Your task to perform on an android device: Add logitech g pro to the cart on ebay Image 0: 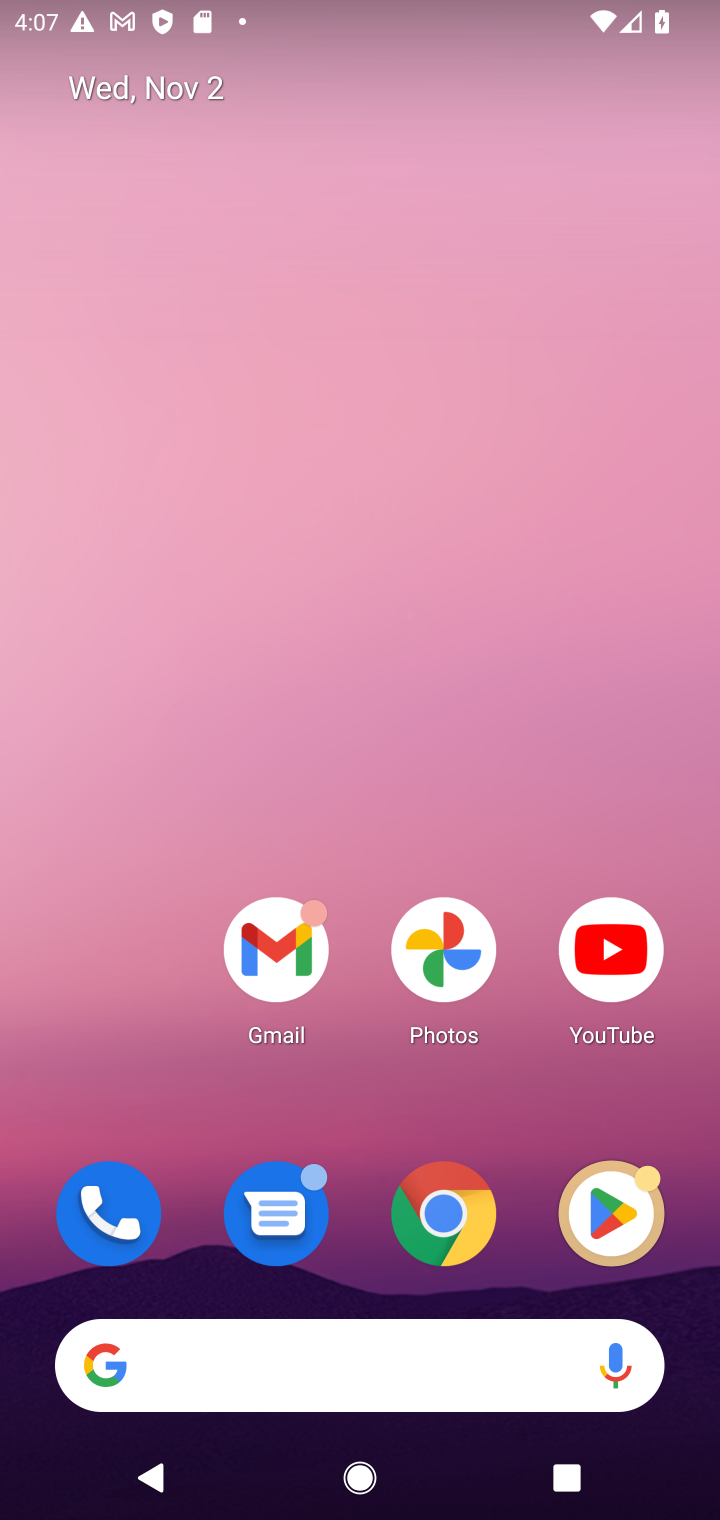
Step 0: drag from (356, 1251) to (428, 0)
Your task to perform on an android device: Add logitech g pro to the cart on ebay Image 1: 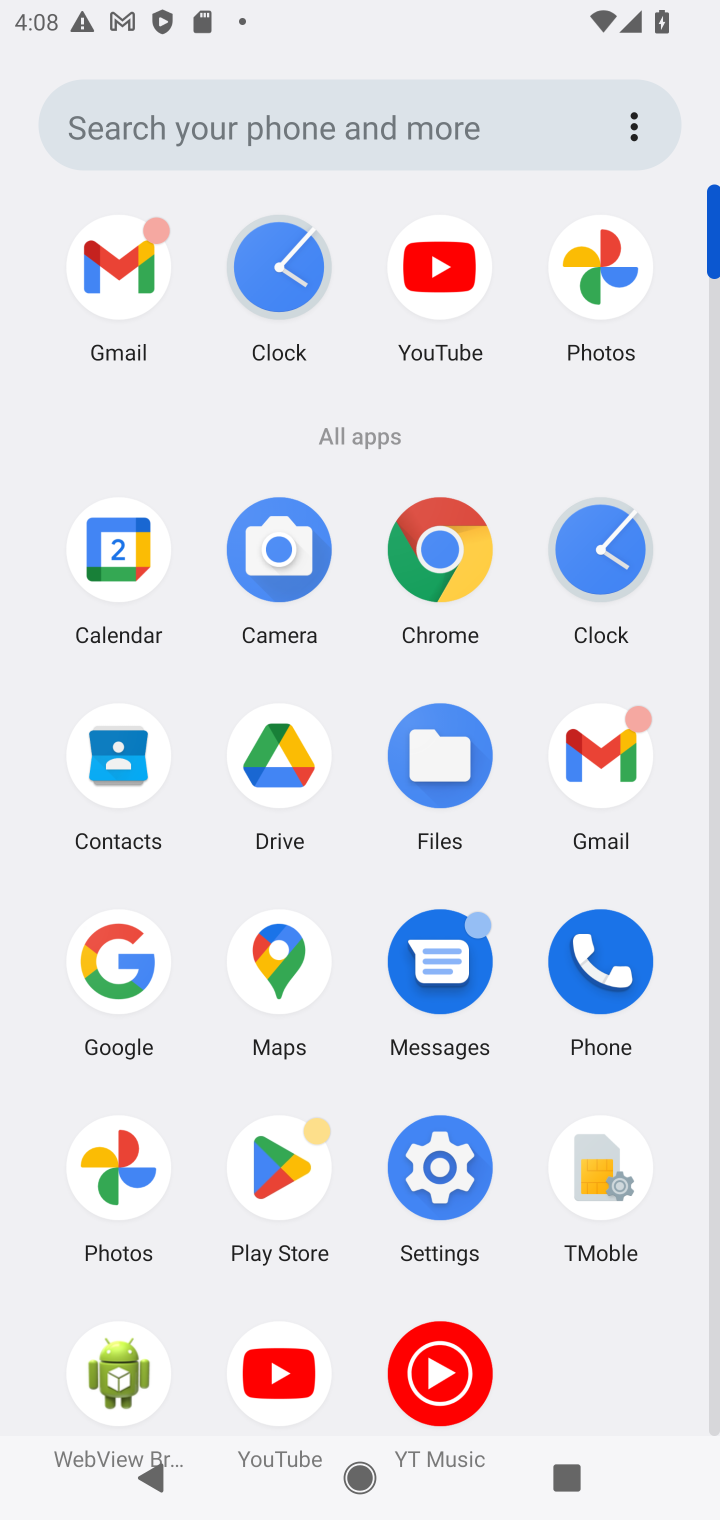
Step 1: click (76, 995)
Your task to perform on an android device: Add logitech g pro to the cart on ebay Image 2: 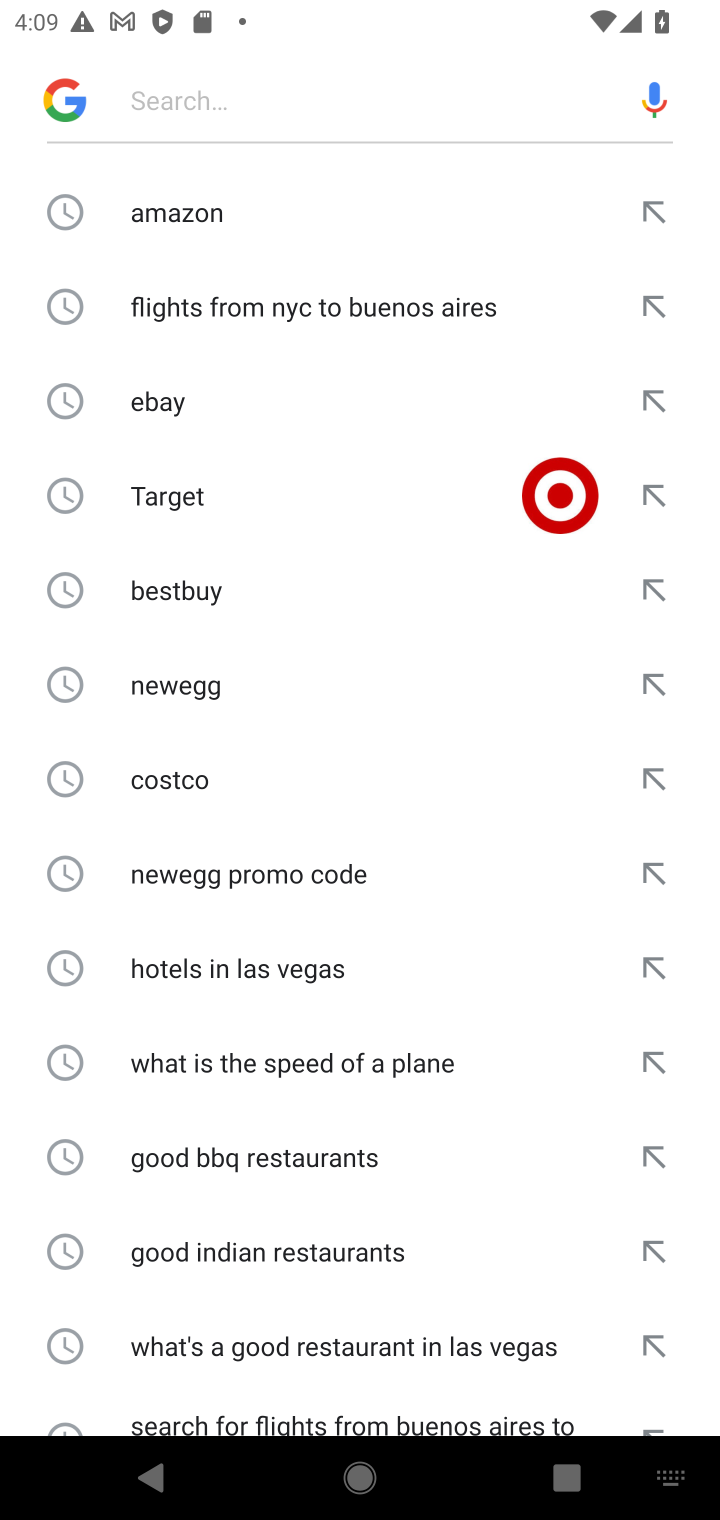
Step 2: type "ebay"
Your task to perform on an android device: Add logitech g pro to the cart on ebay Image 3: 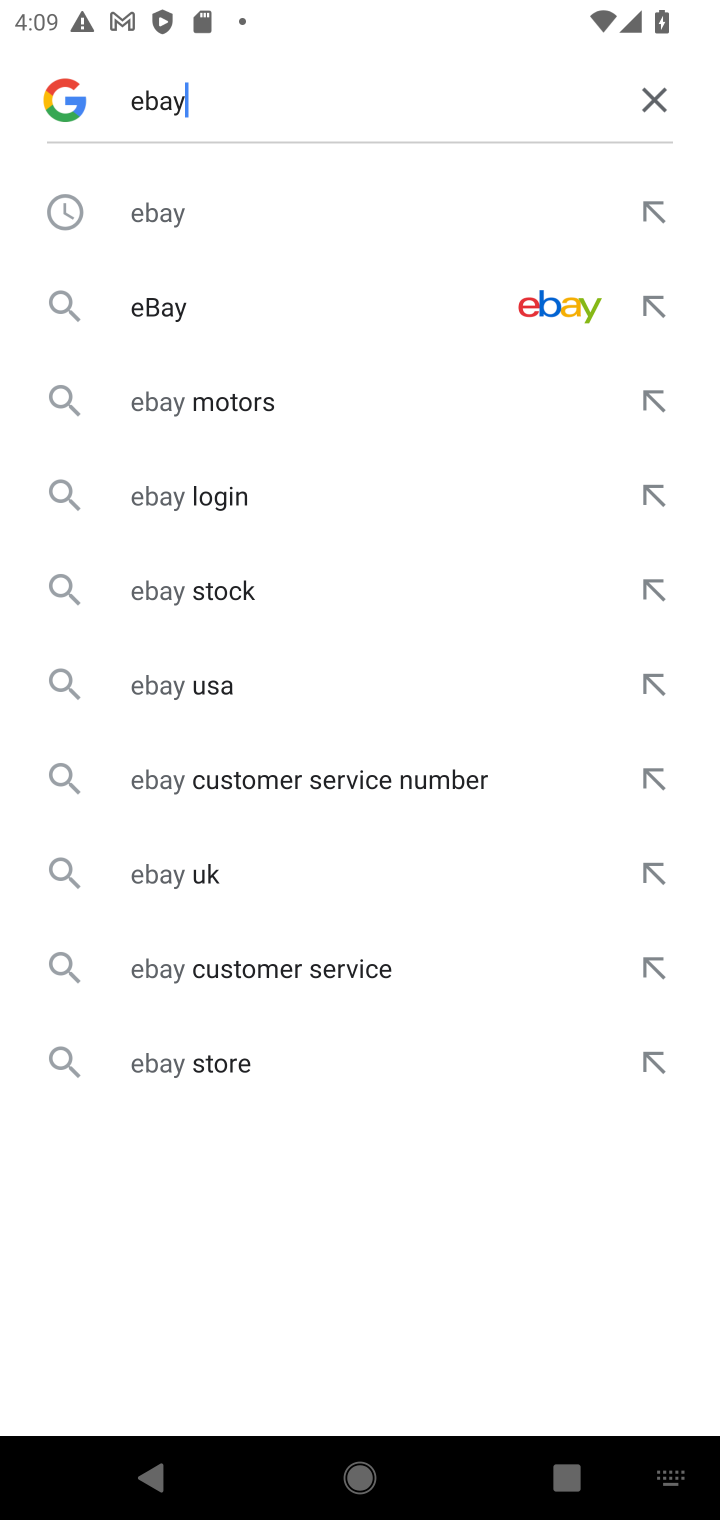
Step 3: click (176, 212)
Your task to perform on an android device: Add logitech g pro to the cart on ebay Image 4: 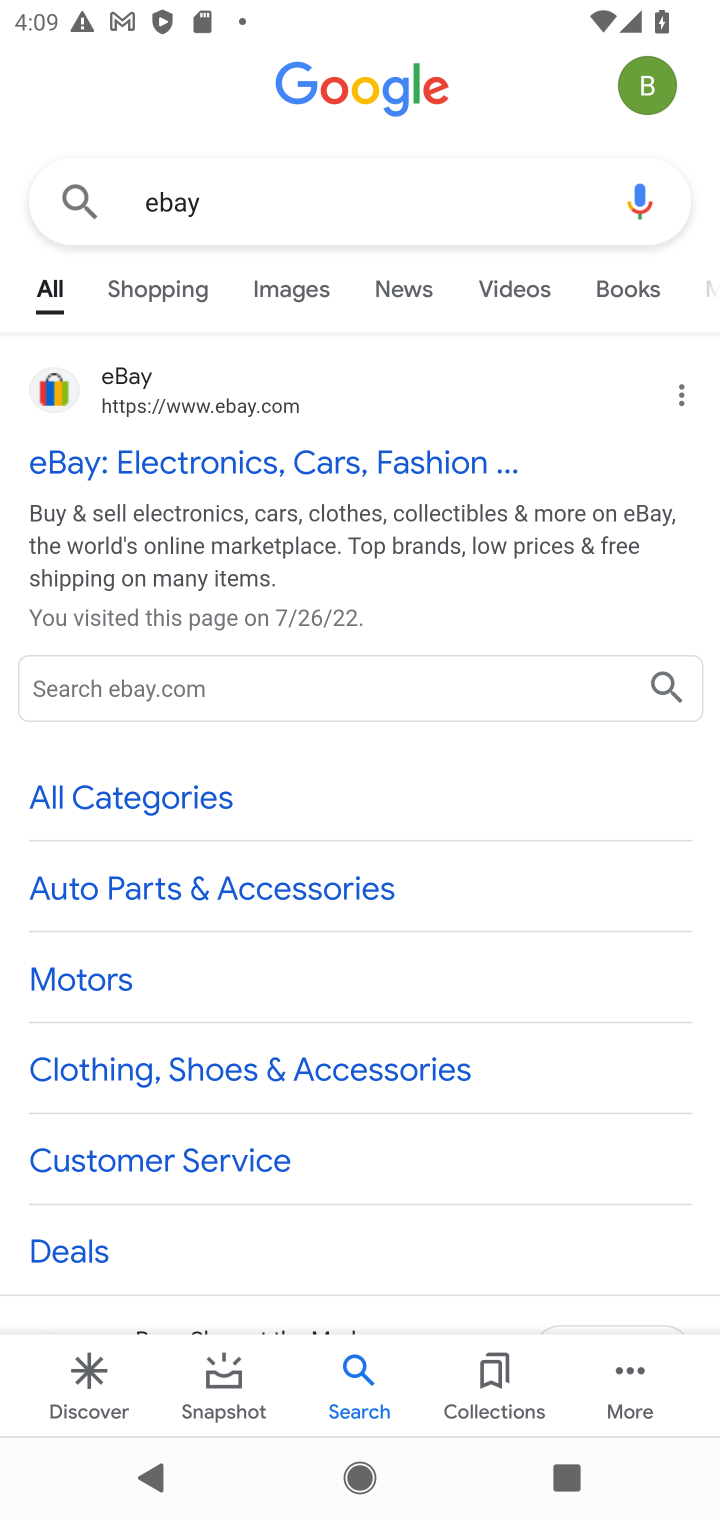
Step 4: click (297, 462)
Your task to perform on an android device: Add logitech g pro to the cart on ebay Image 5: 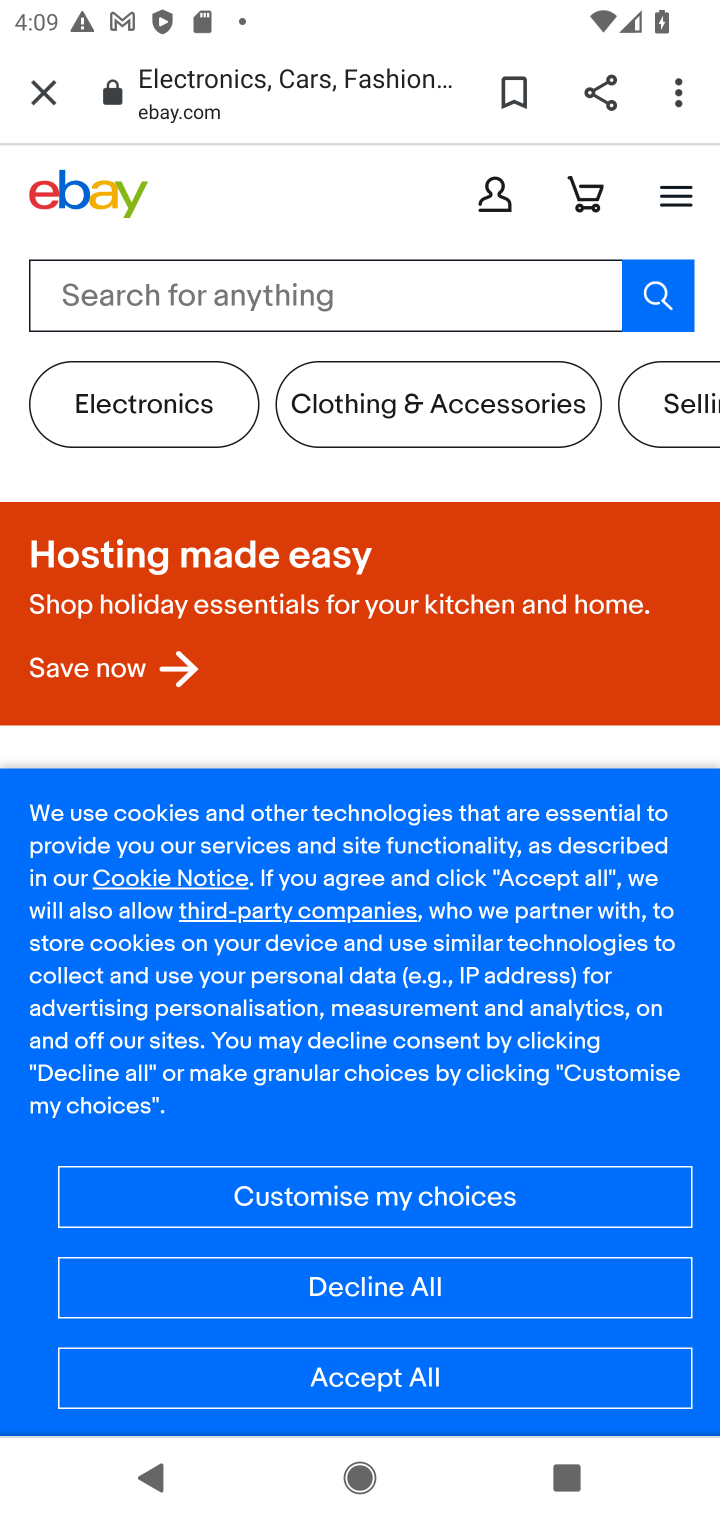
Step 5: click (416, 275)
Your task to perform on an android device: Add logitech g pro to the cart on ebay Image 6: 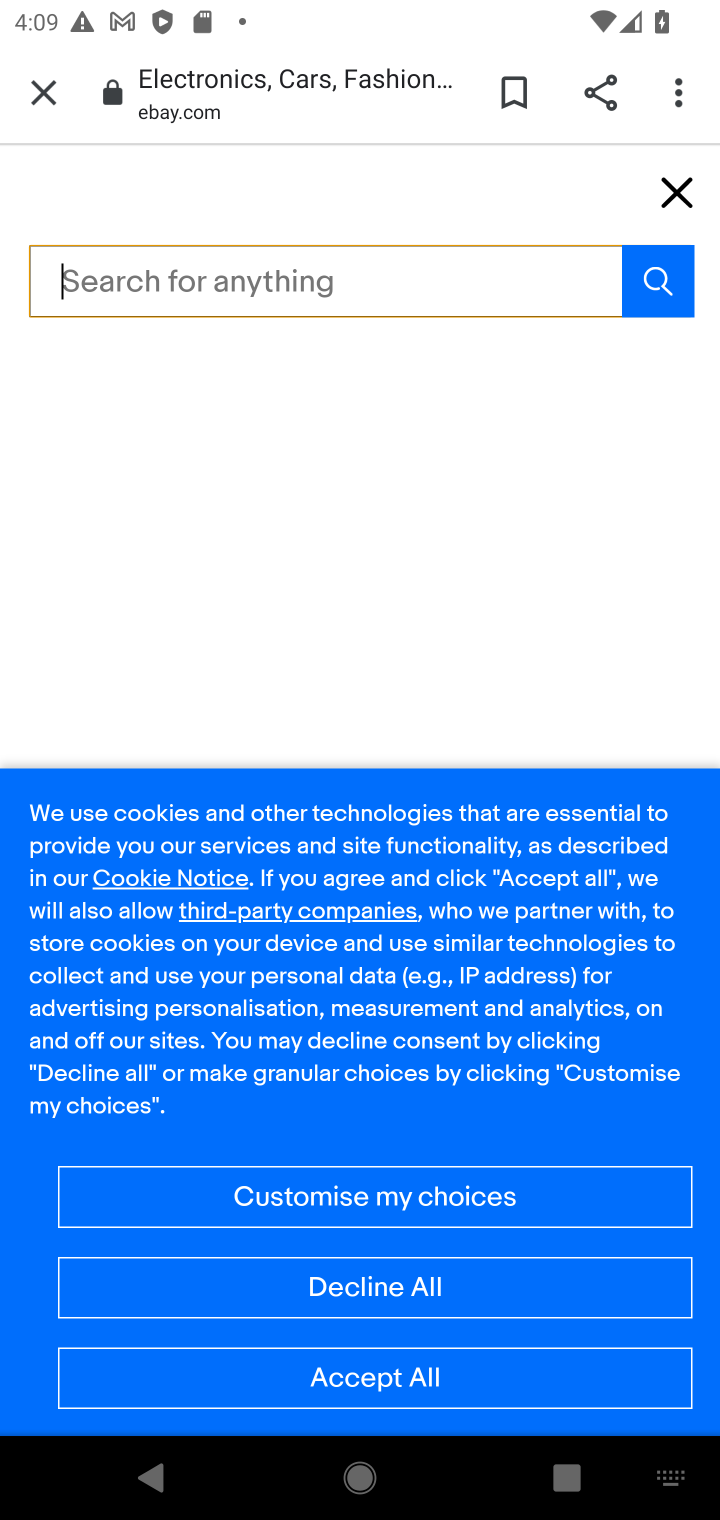
Step 6: type "logitech g pro"
Your task to perform on an android device: Add logitech g pro to the cart on ebay Image 7: 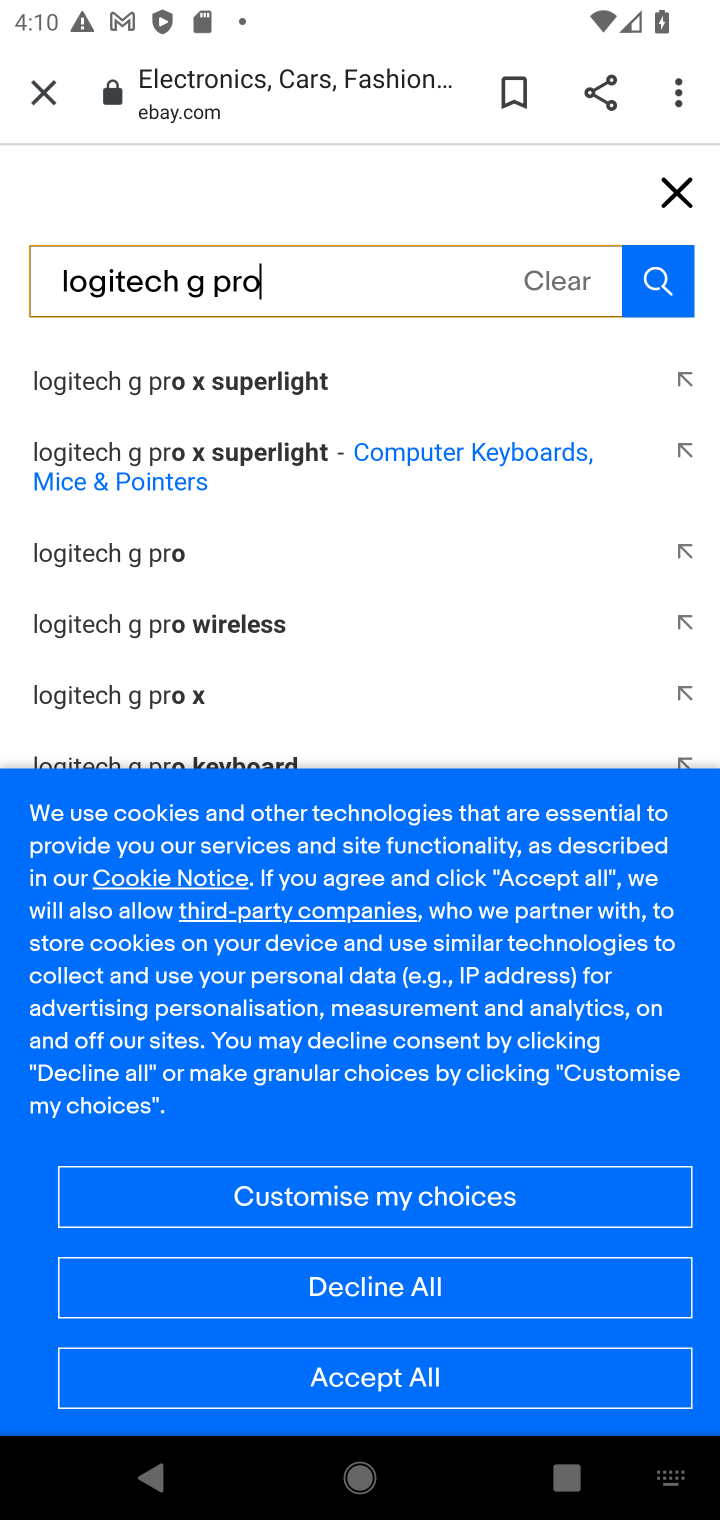
Step 7: click (267, 540)
Your task to perform on an android device: Add logitech g pro to the cart on ebay Image 8: 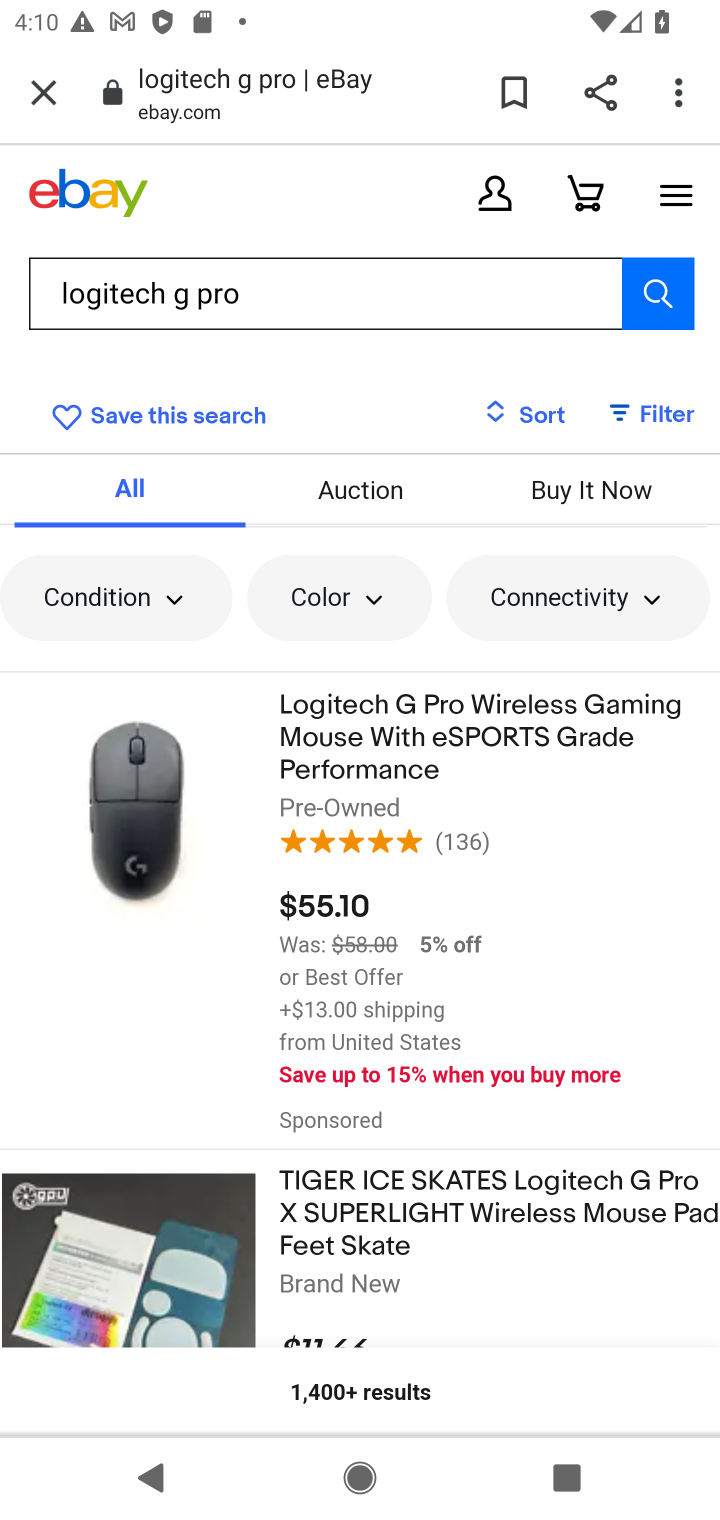
Step 8: click (423, 786)
Your task to perform on an android device: Add logitech g pro to the cart on ebay Image 9: 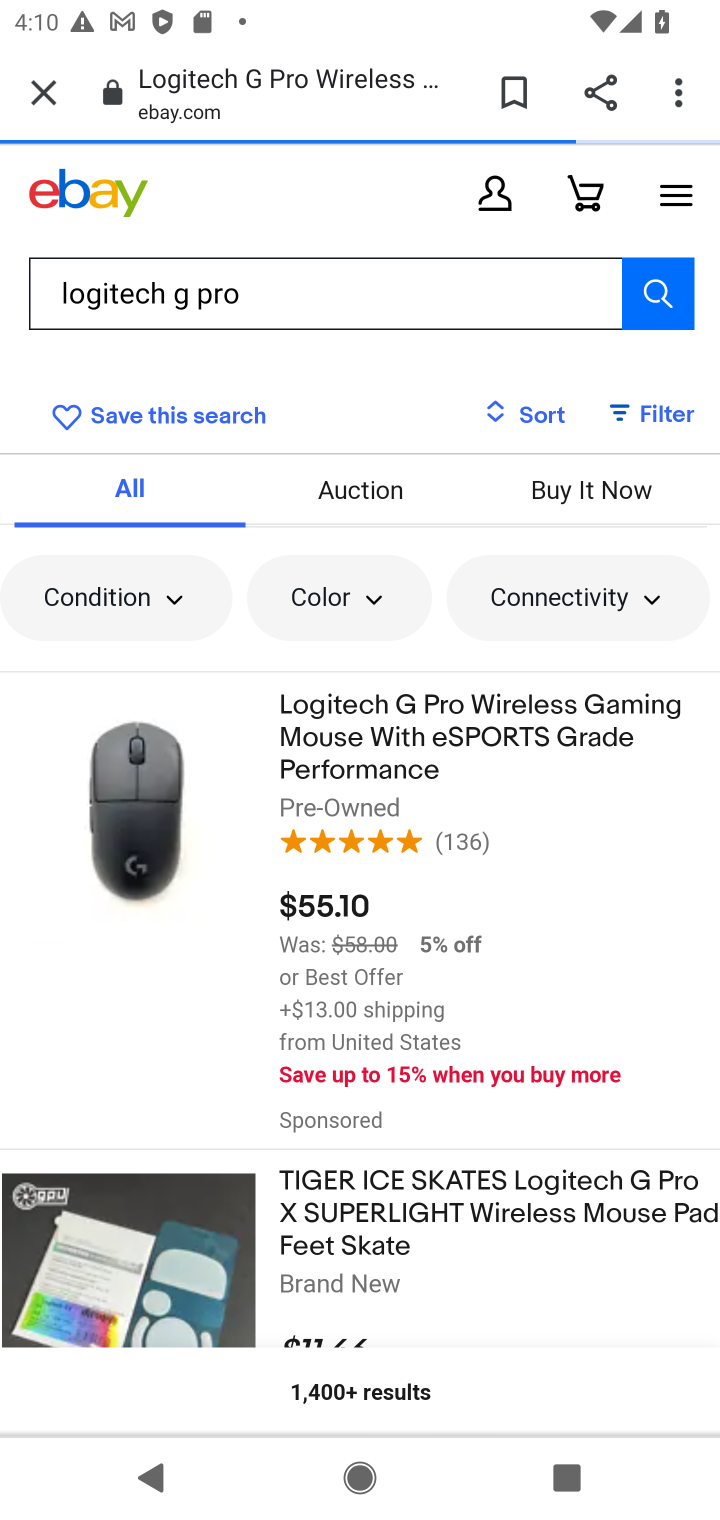
Step 9: drag from (439, 1120) to (623, 21)
Your task to perform on an android device: Add logitech g pro to the cart on ebay Image 10: 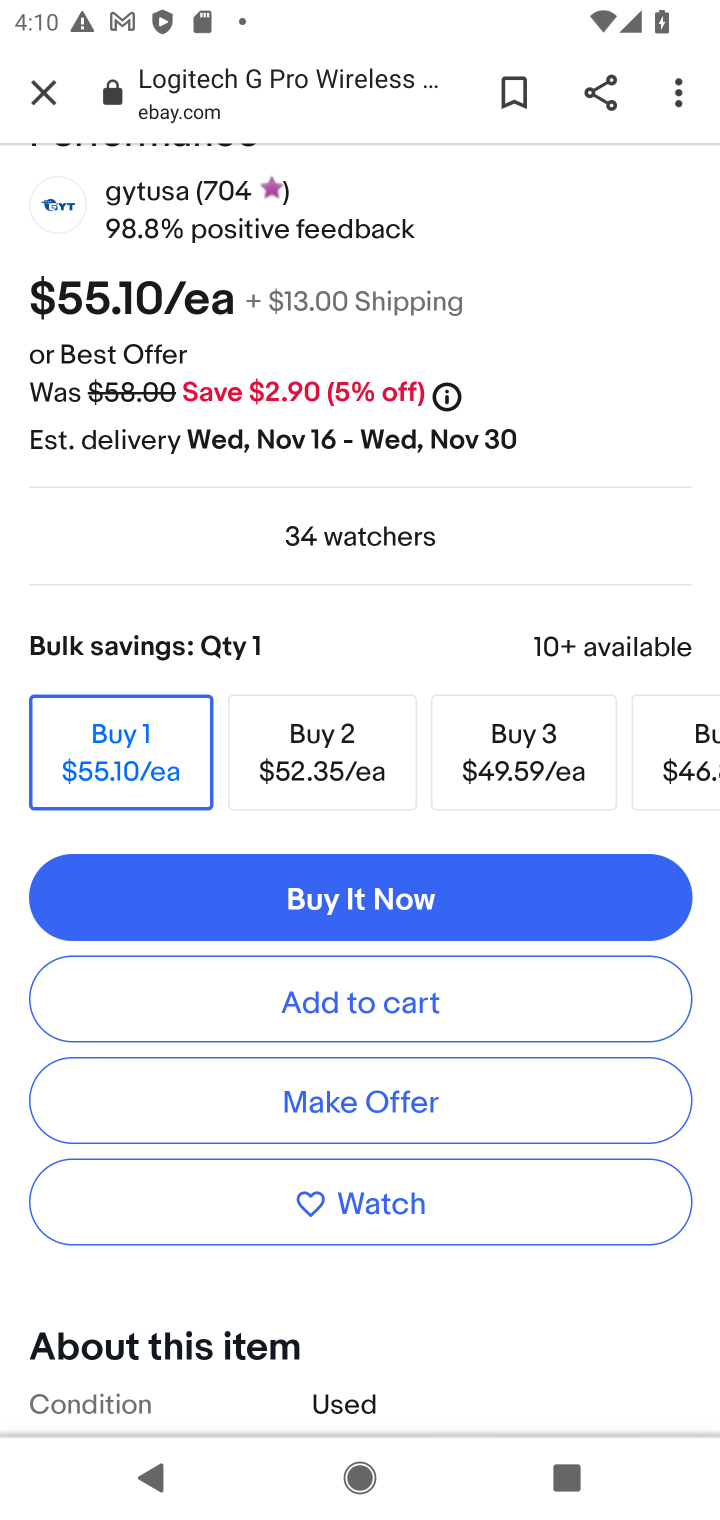
Step 10: click (477, 1019)
Your task to perform on an android device: Add logitech g pro to the cart on ebay Image 11: 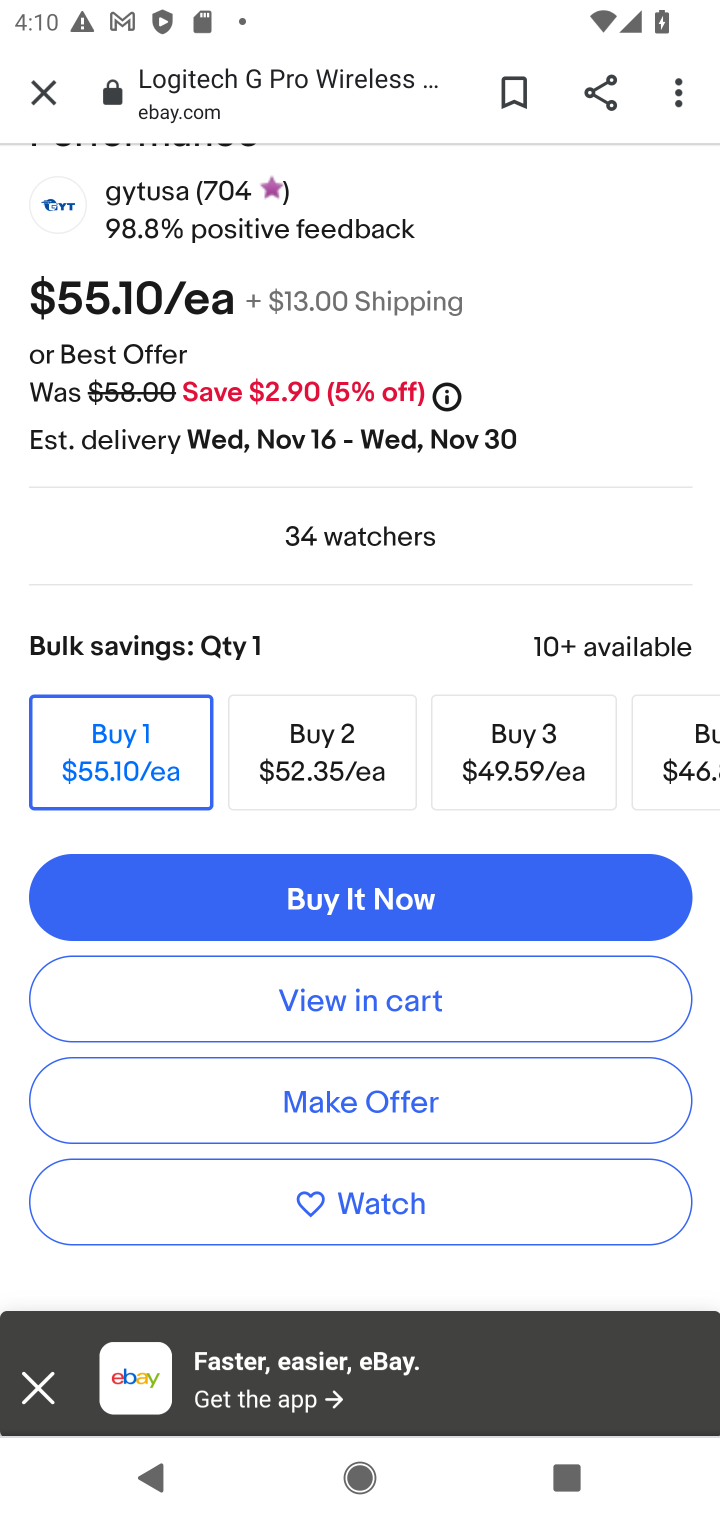
Step 11: task complete